Your task to perform on an android device: change notifications settings Image 0: 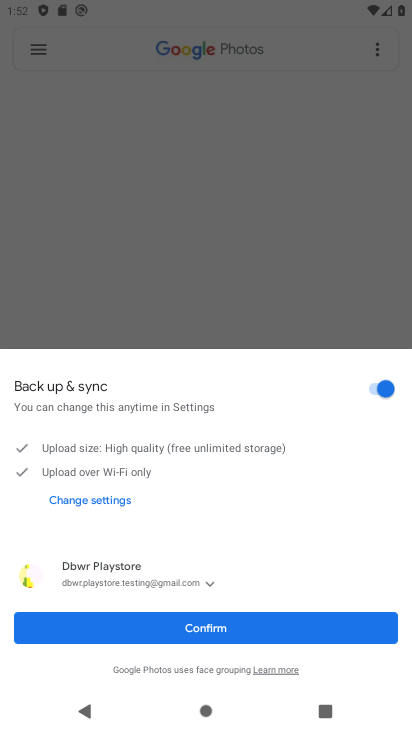
Step 0: press back button
Your task to perform on an android device: change notifications settings Image 1: 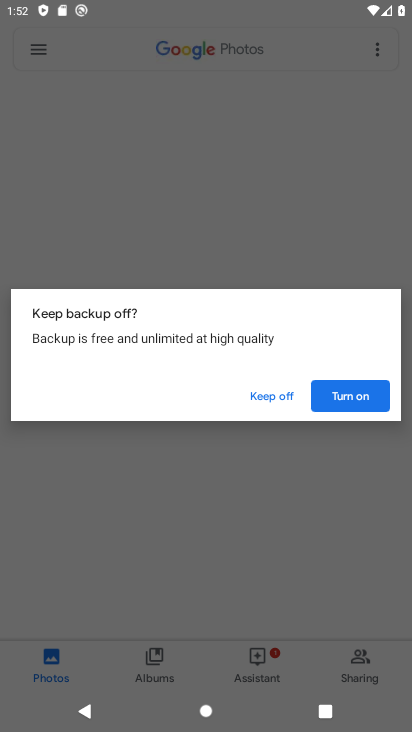
Step 1: press back button
Your task to perform on an android device: change notifications settings Image 2: 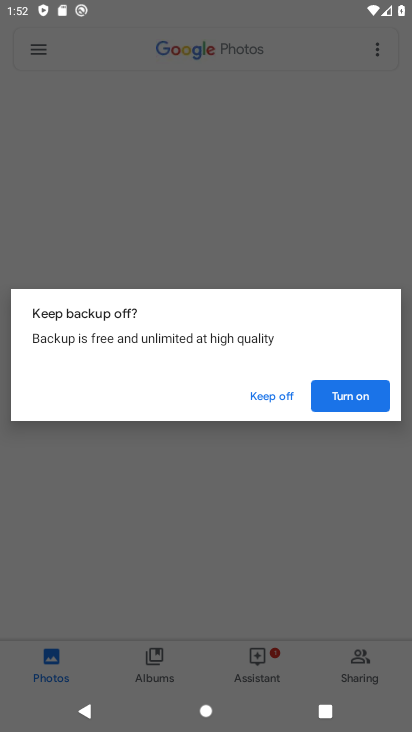
Step 2: press home button
Your task to perform on an android device: change notifications settings Image 3: 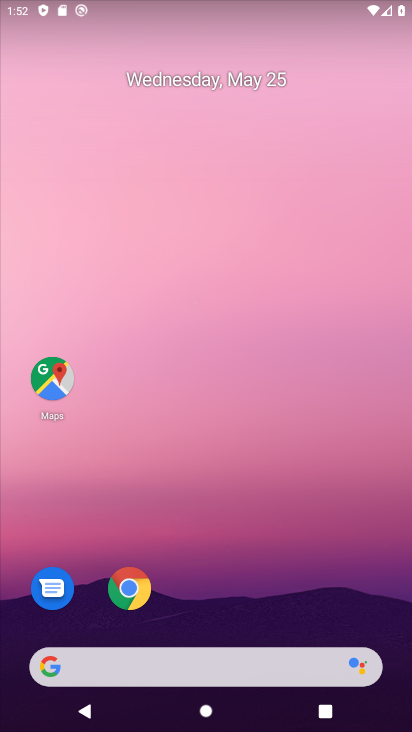
Step 3: drag from (266, 591) to (261, 33)
Your task to perform on an android device: change notifications settings Image 4: 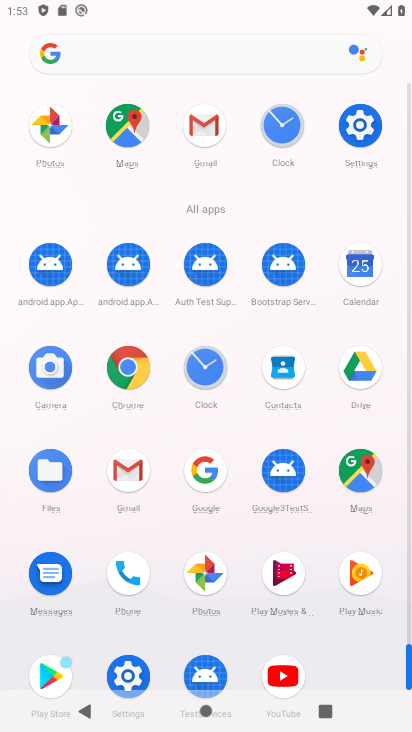
Step 4: drag from (15, 568) to (10, 298)
Your task to perform on an android device: change notifications settings Image 5: 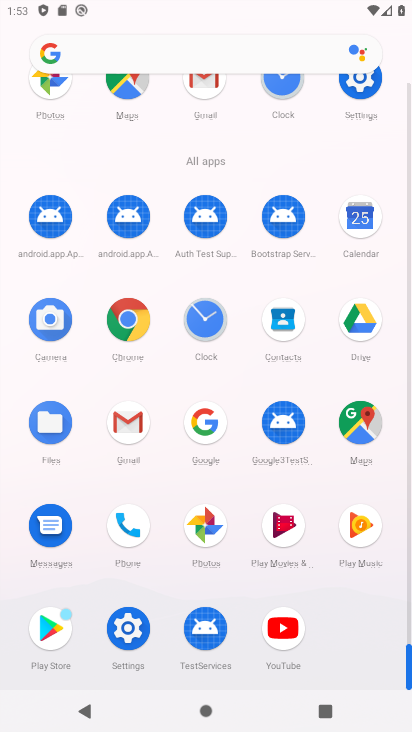
Step 5: click (128, 624)
Your task to perform on an android device: change notifications settings Image 6: 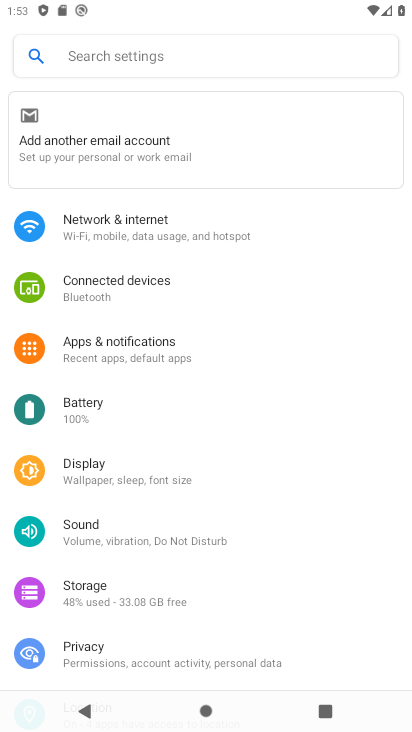
Step 6: click (136, 341)
Your task to perform on an android device: change notifications settings Image 7: 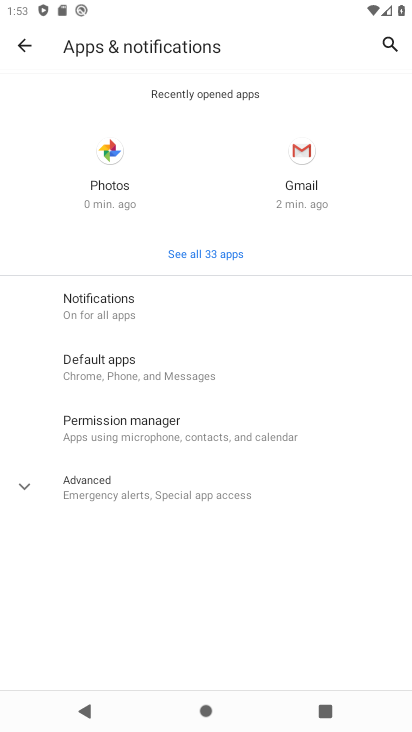
Step 7: click (16, 488)
Your task to perform on an android device: change notifications settings Image 8: 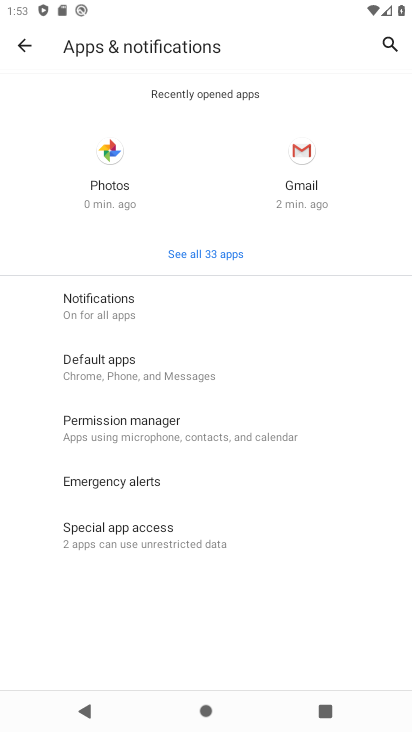
Step 8: click (169, 304)
Your task to perform on an android device: change notifications settings Image 9: 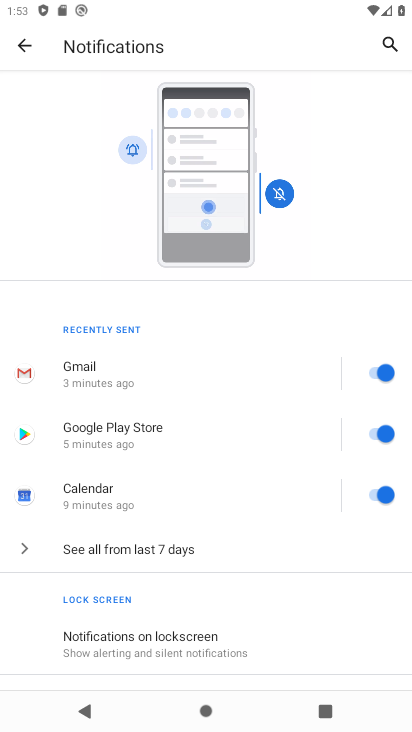
Step 9: task complete